Your task to perform on an android device: check google app version Image 0: 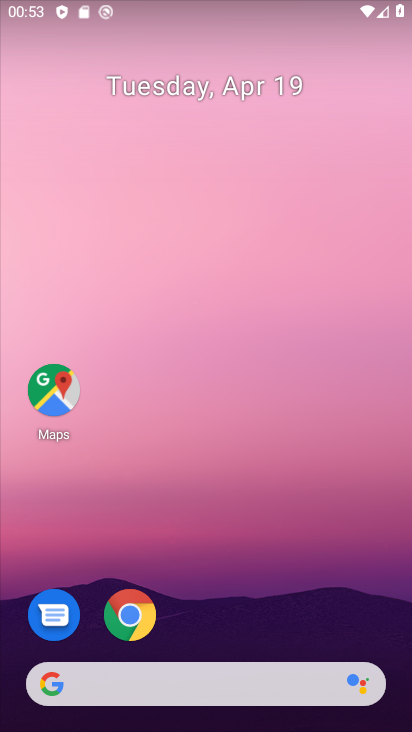
Step 0: drag from (224, 611) to (229, 178)
Your task to perform on an android device: check google app version Image 1: 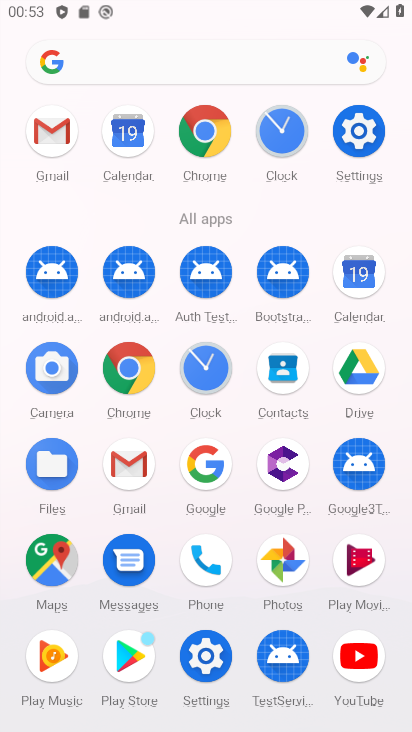
Step 1: click (214, 477)
Your task to perform on an android device: check google app version Image 2: 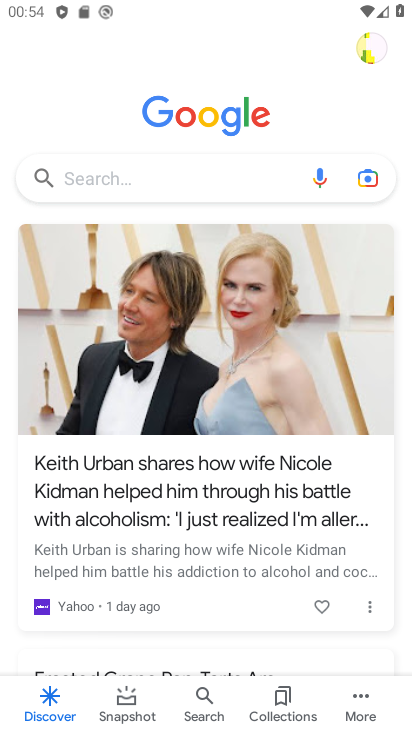
Step 2: click (369, 695)
Your task to perform on an android device: check google app version Image 3: 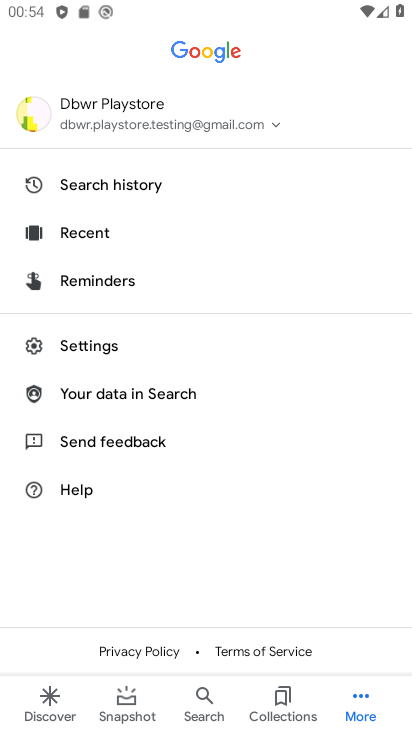
Step 3: click (106, 342)
Your task to perform on an android device: check google app version Image 4: 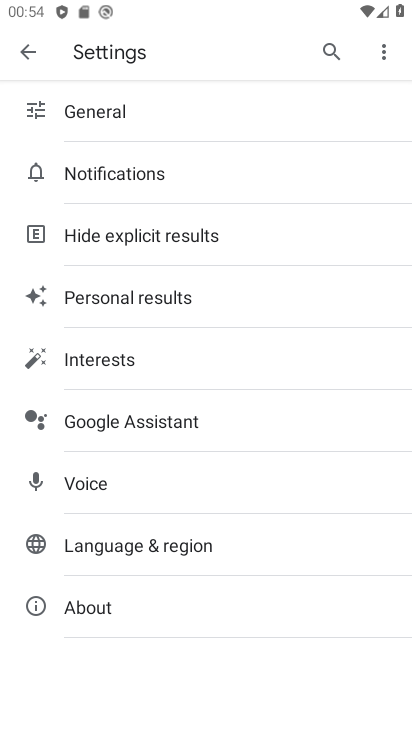
Step 4: click (109, 615)
Your task to perform on an android device: check google app version Image 5: 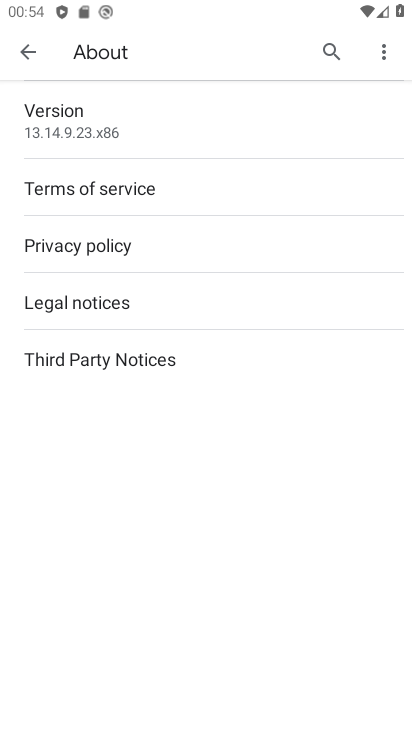
Step 5: task complete